Your task to perform on an android device: Open calendar and show me the fourth week of next month Image 0: 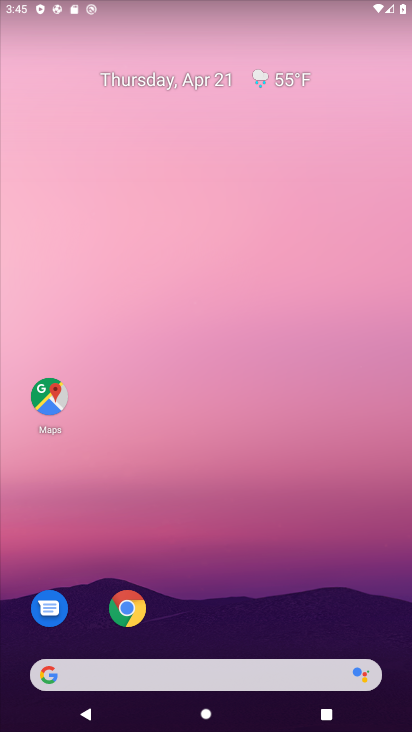
Step 0: drag from (265, 380) to (262, 5)
Your task to perform on an android device: Open calendar and show me the fourth week of next month Image 1: 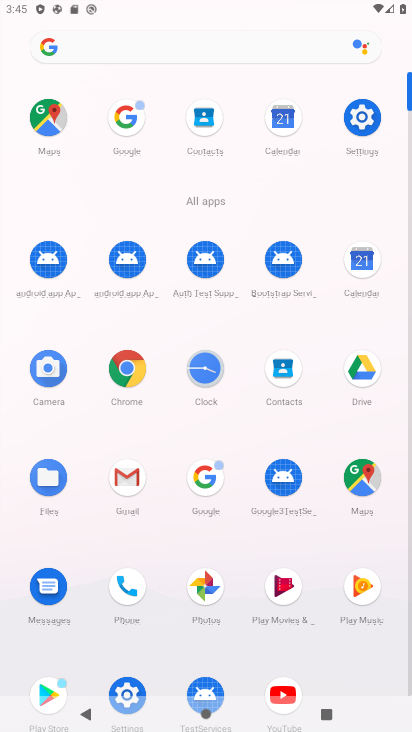
Step 1: click (358, 273)
Your task to perform on an android device: Open calendar and show me the fourth week of next month Image 2: 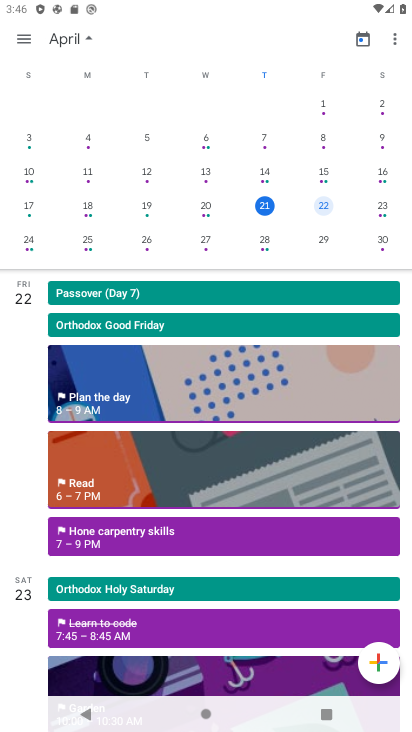
Step 2: click (358, 273)
Your task to perform on an android device: Open calendar and show me the fourth week of next month Image 3: 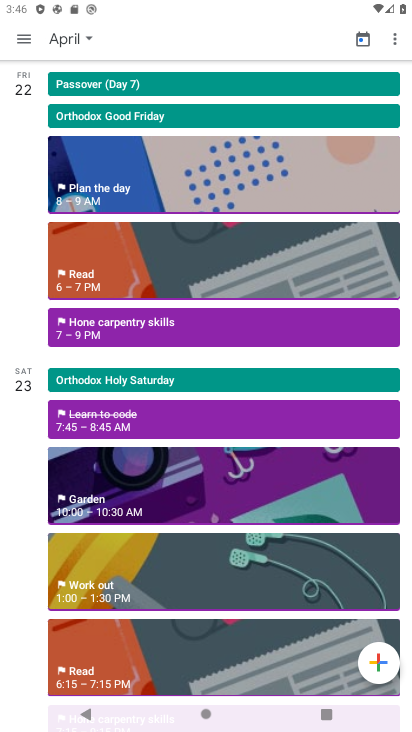
Step 3: click (66, 42)
Your task to perform on an android device: Open calendar and show me the fourth week of next month Image 4: 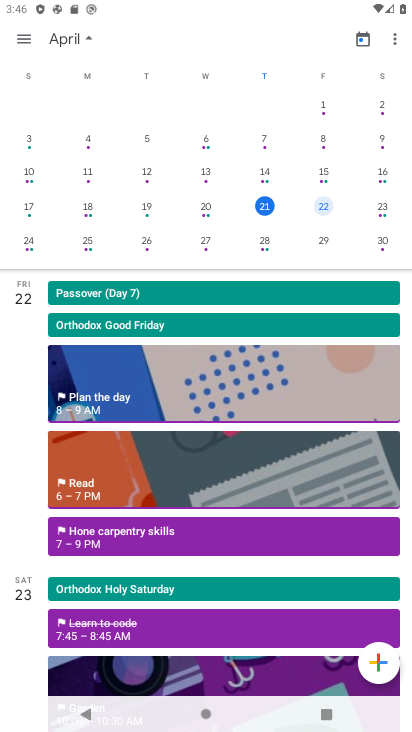
Step 4: drag from (311, 163) to (5, 172)
Your task to perform on an android device: Open calendar and show me the fourth week of next month Image 5: 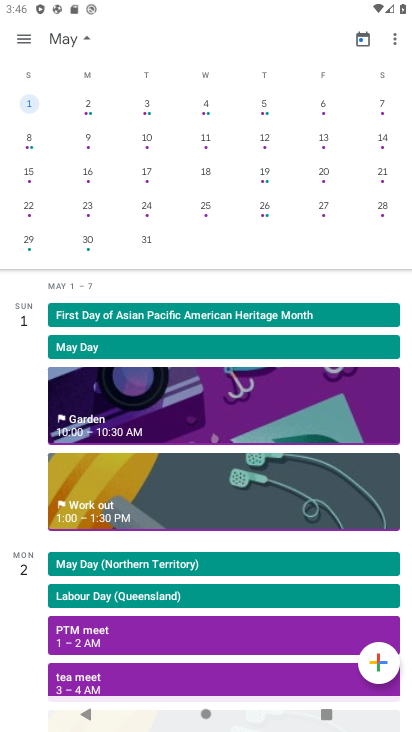
Step 5: click (310, 172)
Your task to perform on an android device: Open calendar and show me the fourth week of next month Image 6: 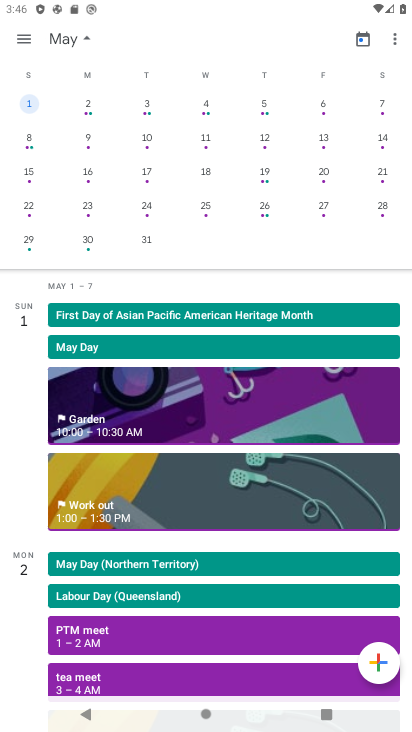
Step 6: click (34, 215)
Your task to perform on an android device: Open calendar and show me the fourth week of next month Image 7: 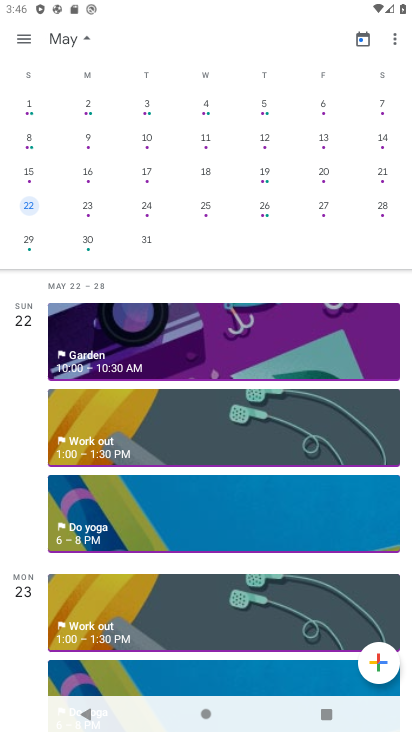
Step 7: task complete